Your task to perform on an android device: Search for vegetarian restaurants on Maps Image 0: 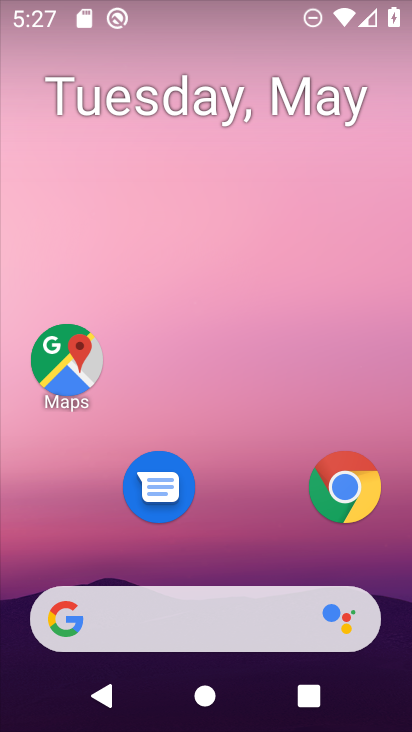
Step 0: click (58, 382)
Your task to perform on an android device: Search for vegetarian restaurants on Maps Image 1: 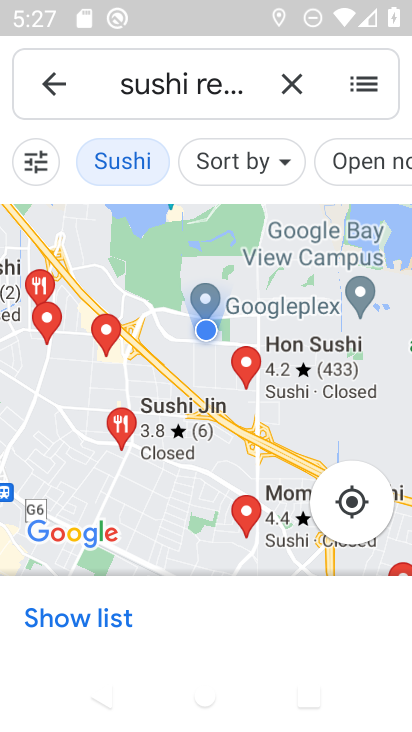
Step 1: click (318, 89)
Your task to perform on an android device: Search for vegetarian restaurants on Maps Image 2: 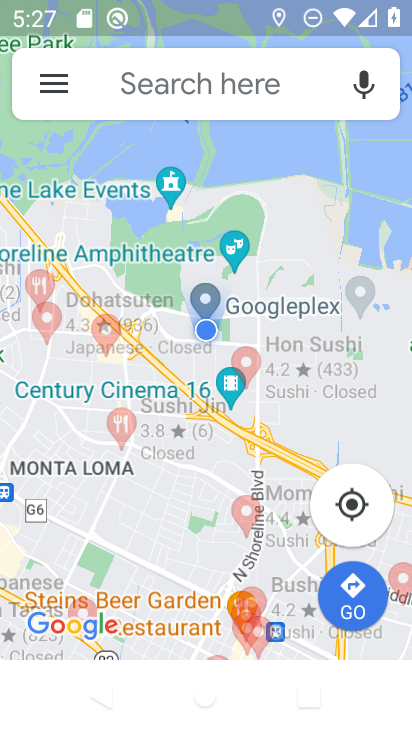
Step 2: click (318, 89)
Your task to perform on an android device: Search for vegetarian restaurants on Maps Image 3: 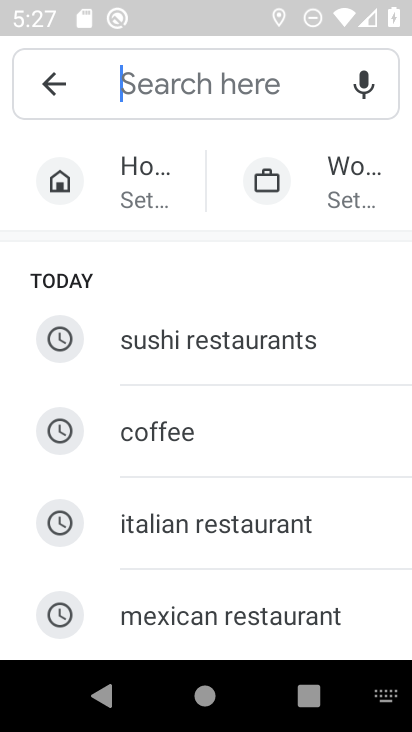
Step 3: drag from (217, 607) to (202, 396)
Your task to perform on an android device: Search for vegetarian restaurants on Maps Image 4: 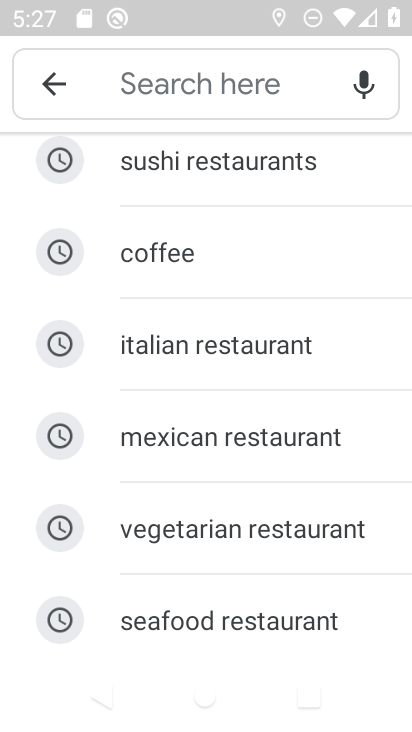
Step 4: click (216, 544)
Your task to perform on an android device: Search for vegetarian restaurants on Maps Image 5: 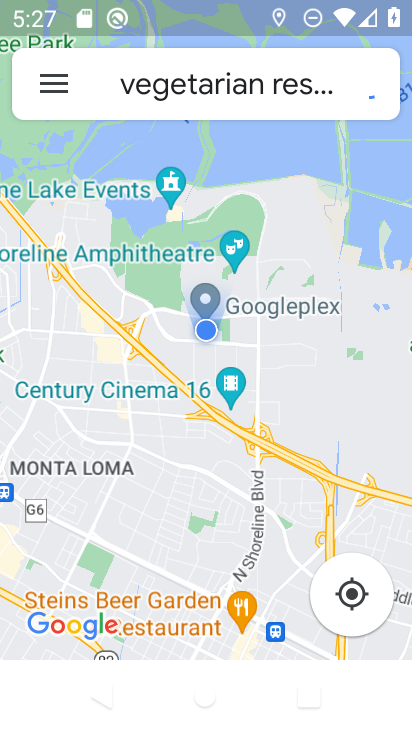
Step 5: task complete